Your task to perform on an android device: see tabs open on other devices in the chrome app Image 0: 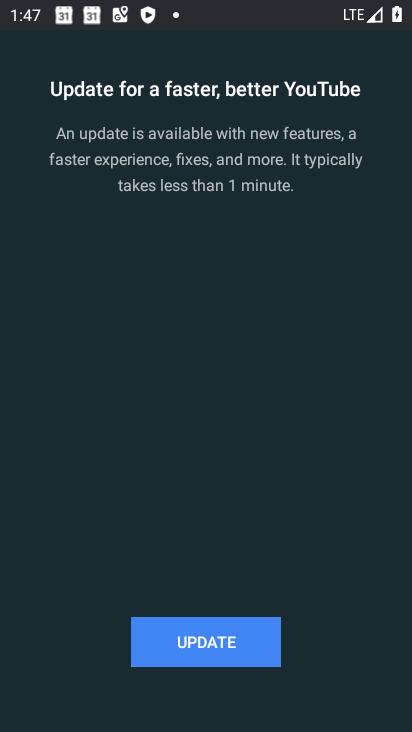
Step 0: press home button
Your task to perform on an android device: see tabs open on other devices in the chrome app Image 1: 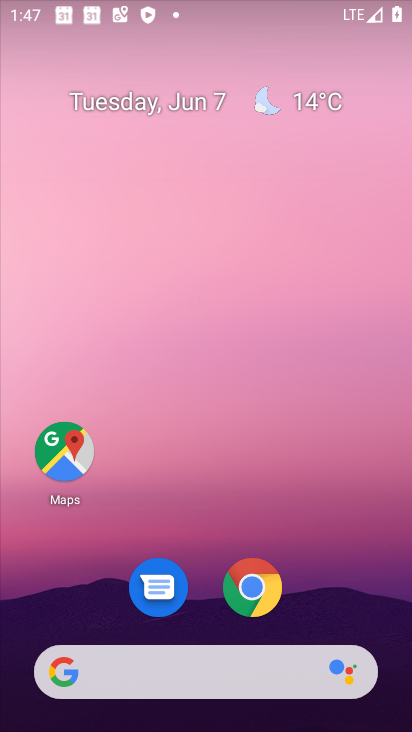
Step 1: drag from (242, 643) to (244, 185)
Your task to perform on an android device: see tabs open on other devices in the chrome app Image 2: 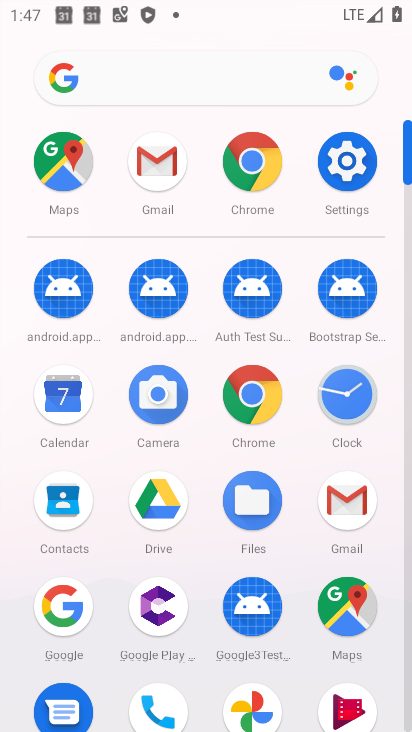
Step 2: click (246, 175)
Your task to perform on an android device: see tabs open on other devices in the chrome app Image 3: 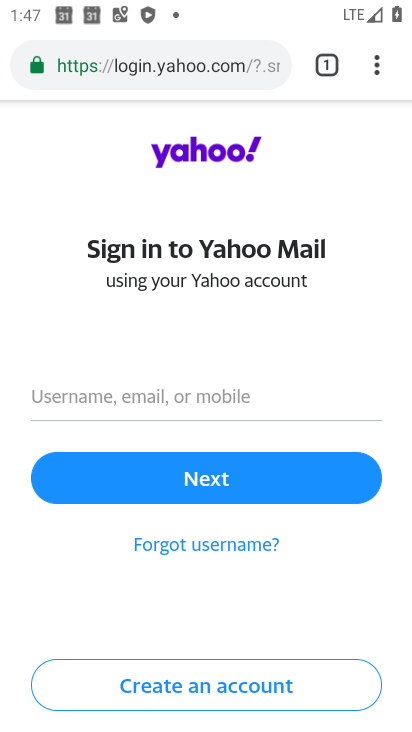
Step 3: task complete